Your task to perform on an android device: snooze an email in the gmail app Image 0: 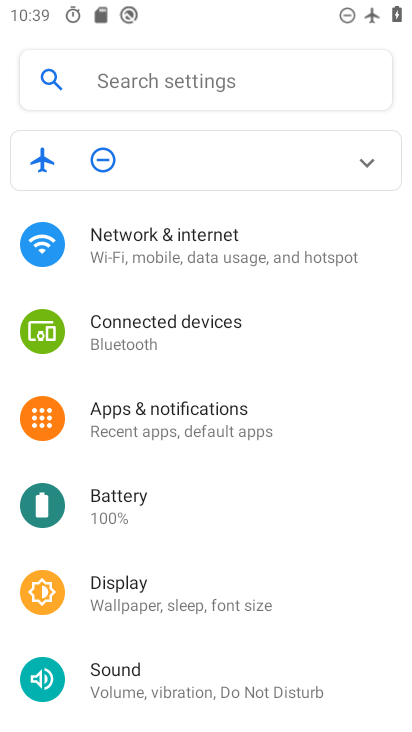
Step 0: press home button
Your task to perform on an android device: snooze an email in the gmail app Image 1: 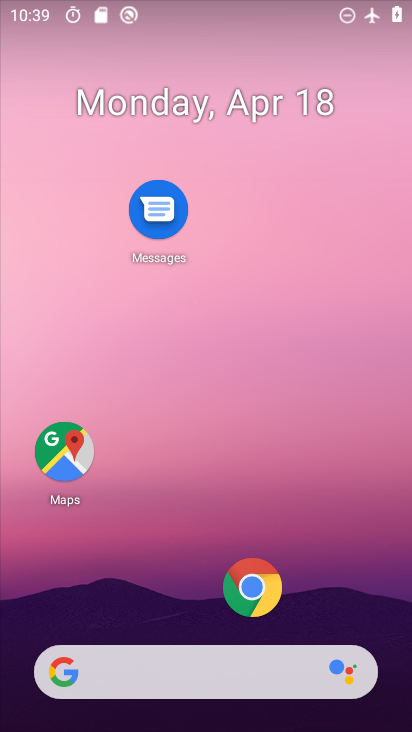
Step 1: drag from (198, 618) to (347, 23)
Your task to perform on an android device: snooze an email in the gmail app Image 2: 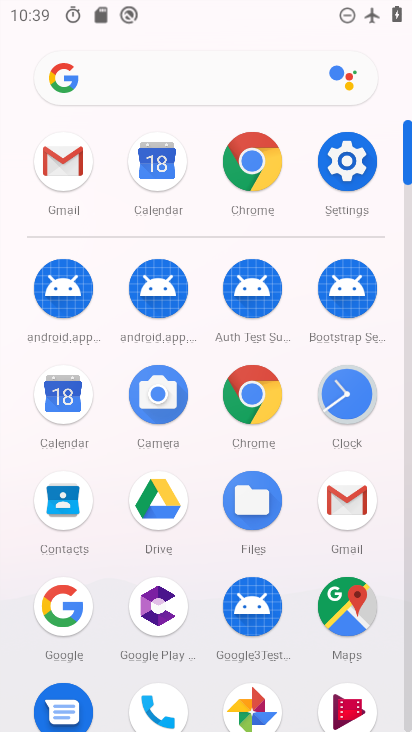
Step 2: click (358, 503)
Your task to perform on an android device: snooze an email in the gmail app Image 3: 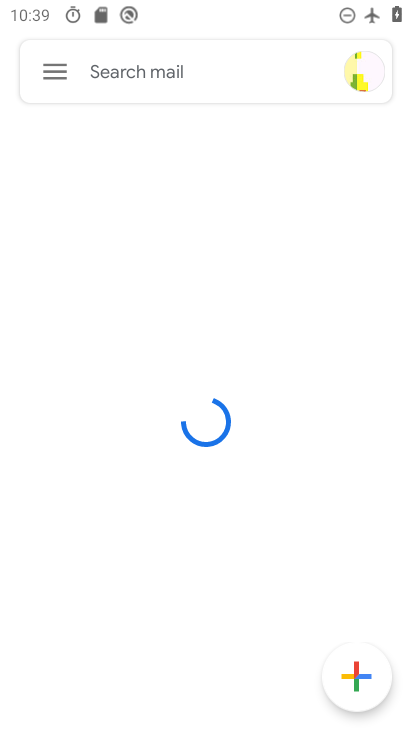
Step 3: click (53, 61)
Your task to perform on an android device: snooze an email in the gmail app Image 4: 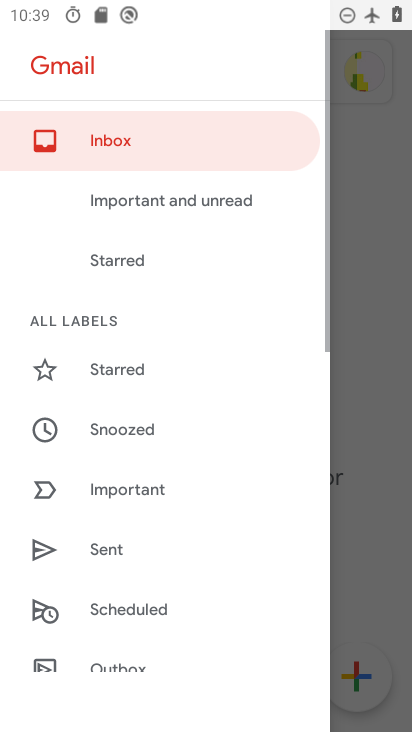
Step 4: task complete